Your task to perform on an android device: see tabs open on other devices in the chrome app Image 0: 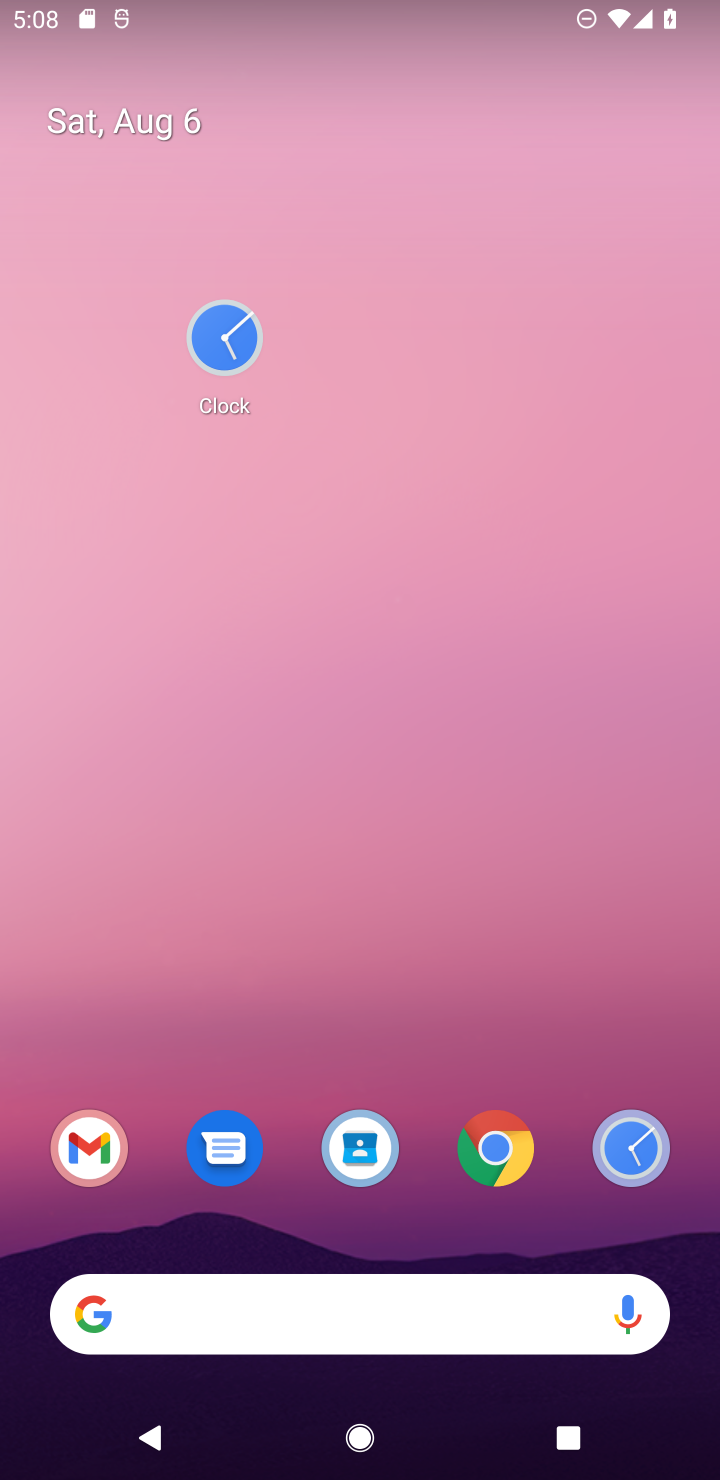
Step 0: click (505, 35)
Your task to perform on an android device: see tabs open on other devices in the chrome app Image 1: 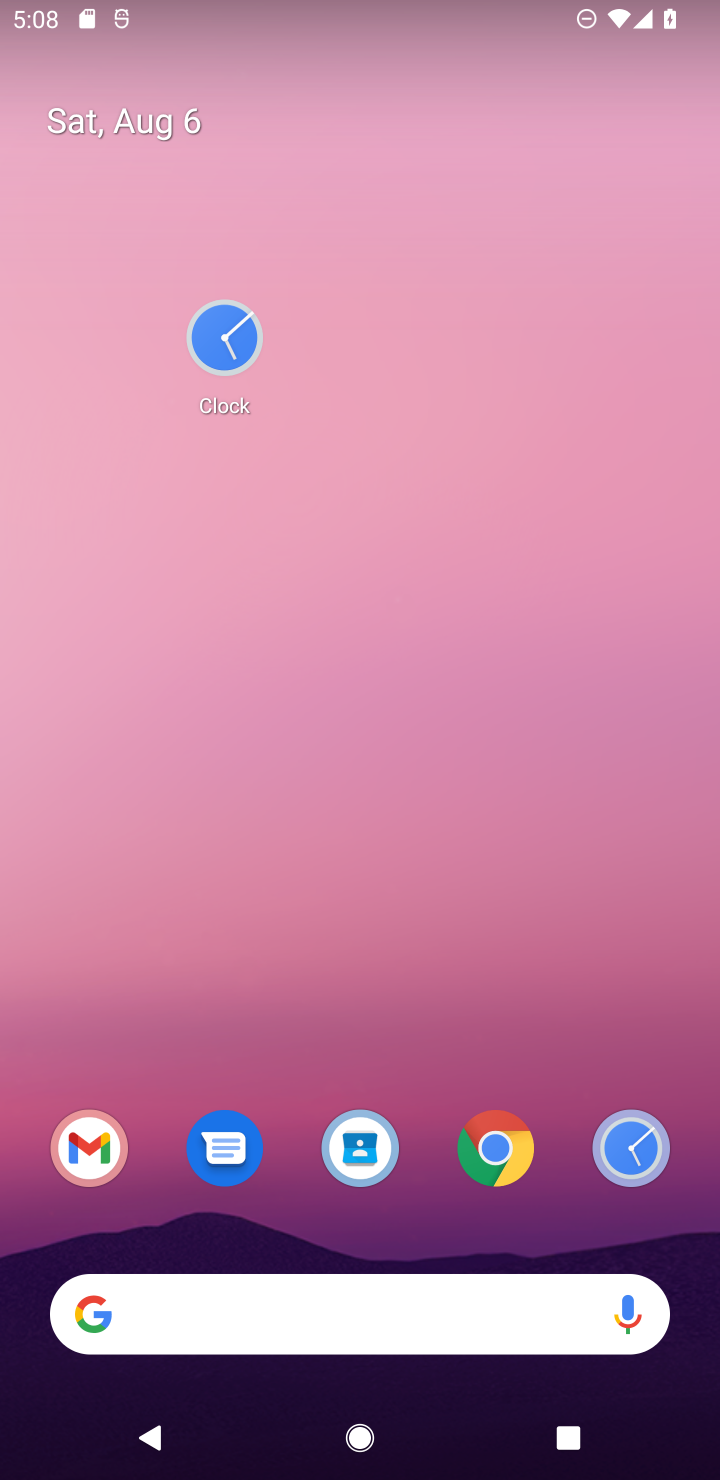
Step 1: drag from (293, 1275) to (492, 315)
Your task to perform on an android device: see tabs open on other devices in the chrome app Image 2: 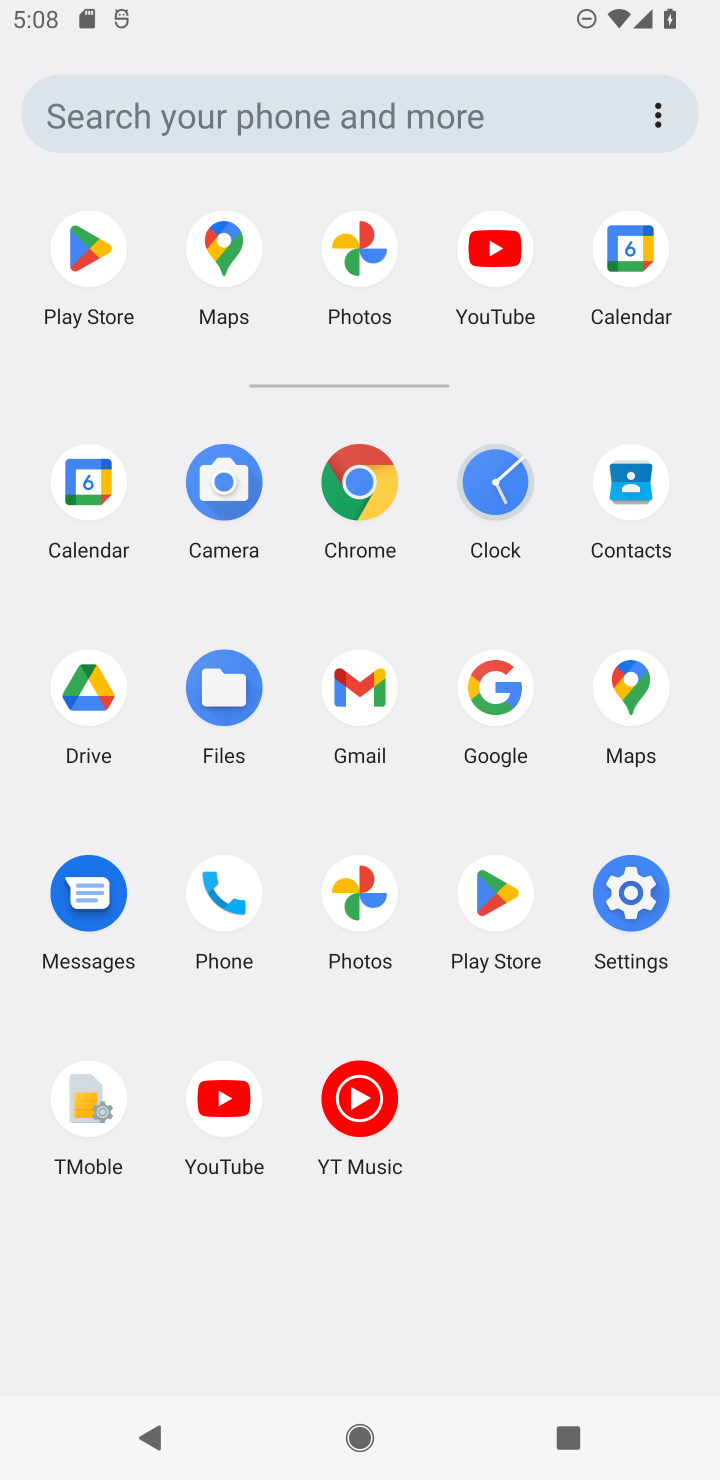
Step 2: click (357, 479)
Your task to perform on an android device: see tabs open on other devices in the chrome app Image 3: 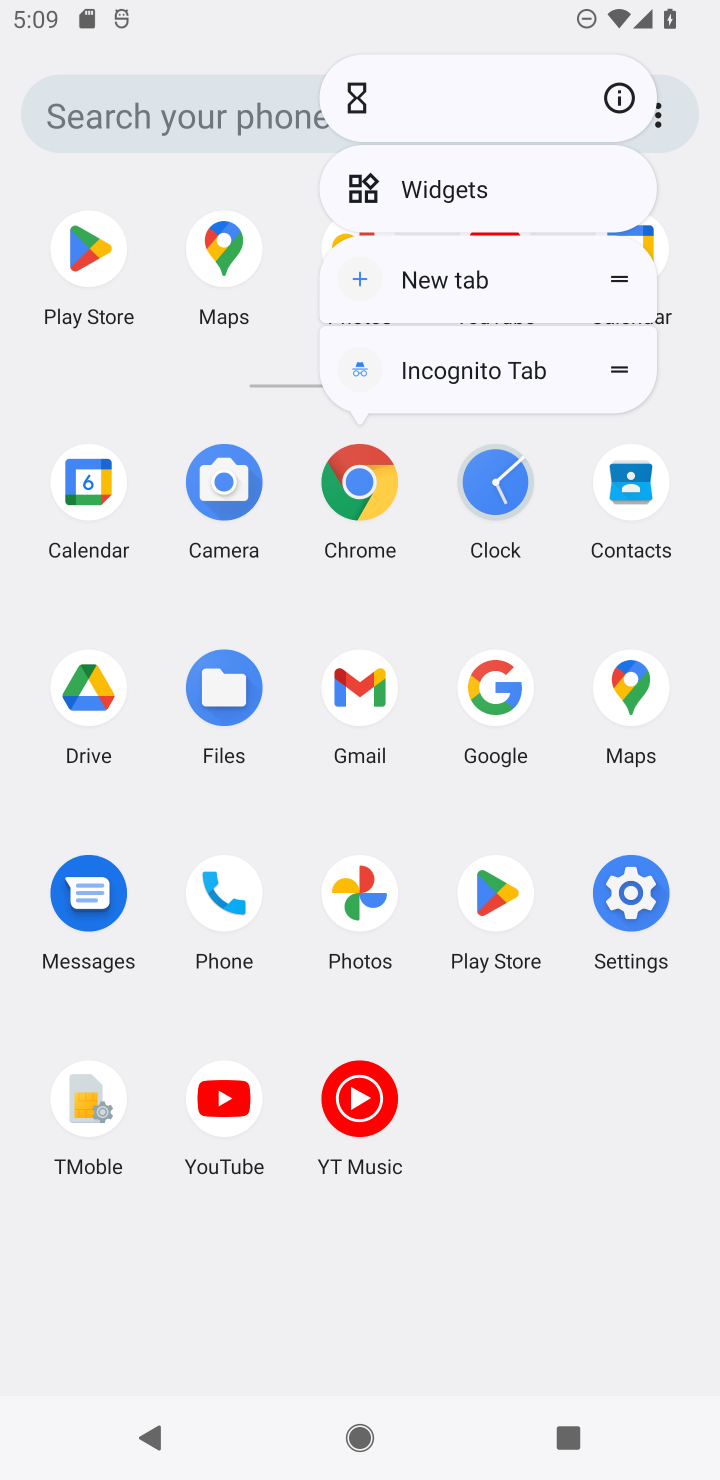
Step 3: click (618, 95)
Your task to perform on an android device: see tabs open on other devices in the chrome app Image 4: 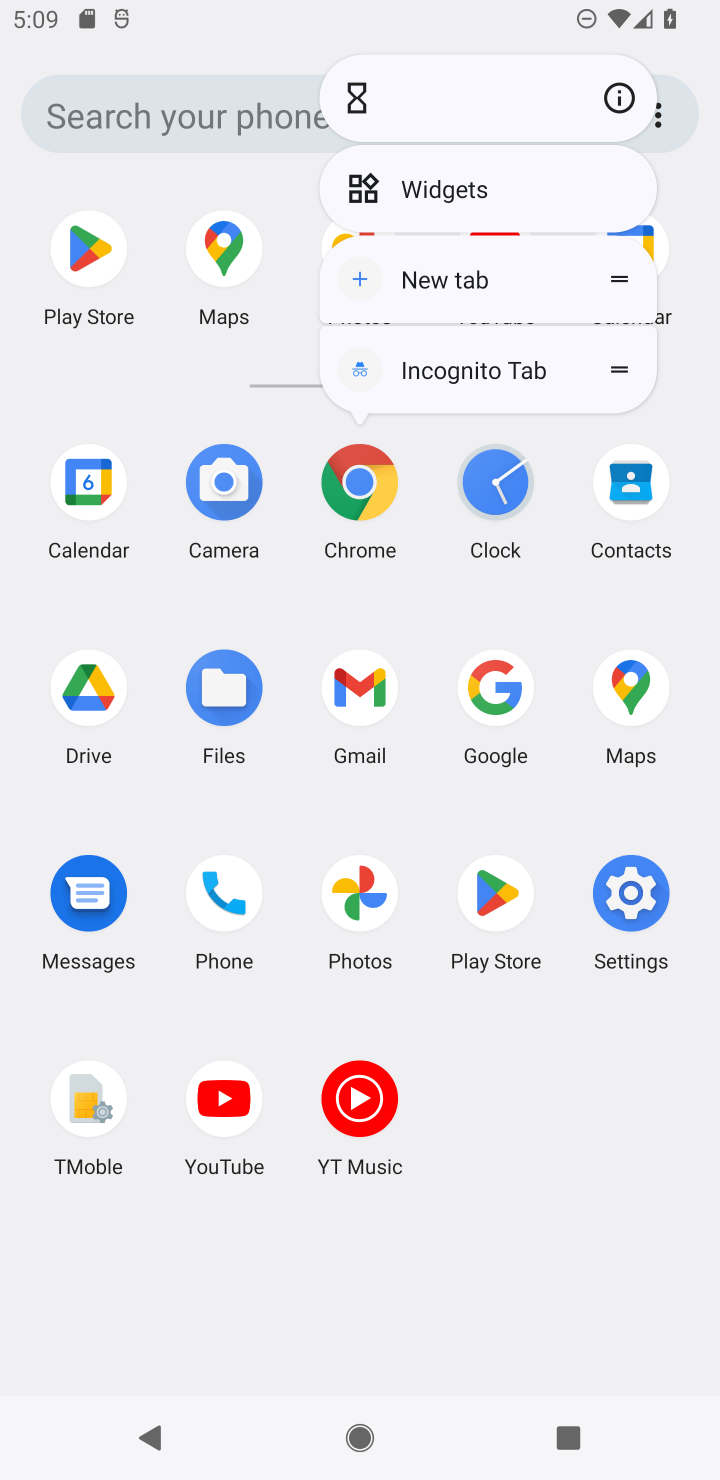
Step 4: click (363, 479)
Your task to perform on an android device: see tabs open on other devices in the chrome app Image 5: 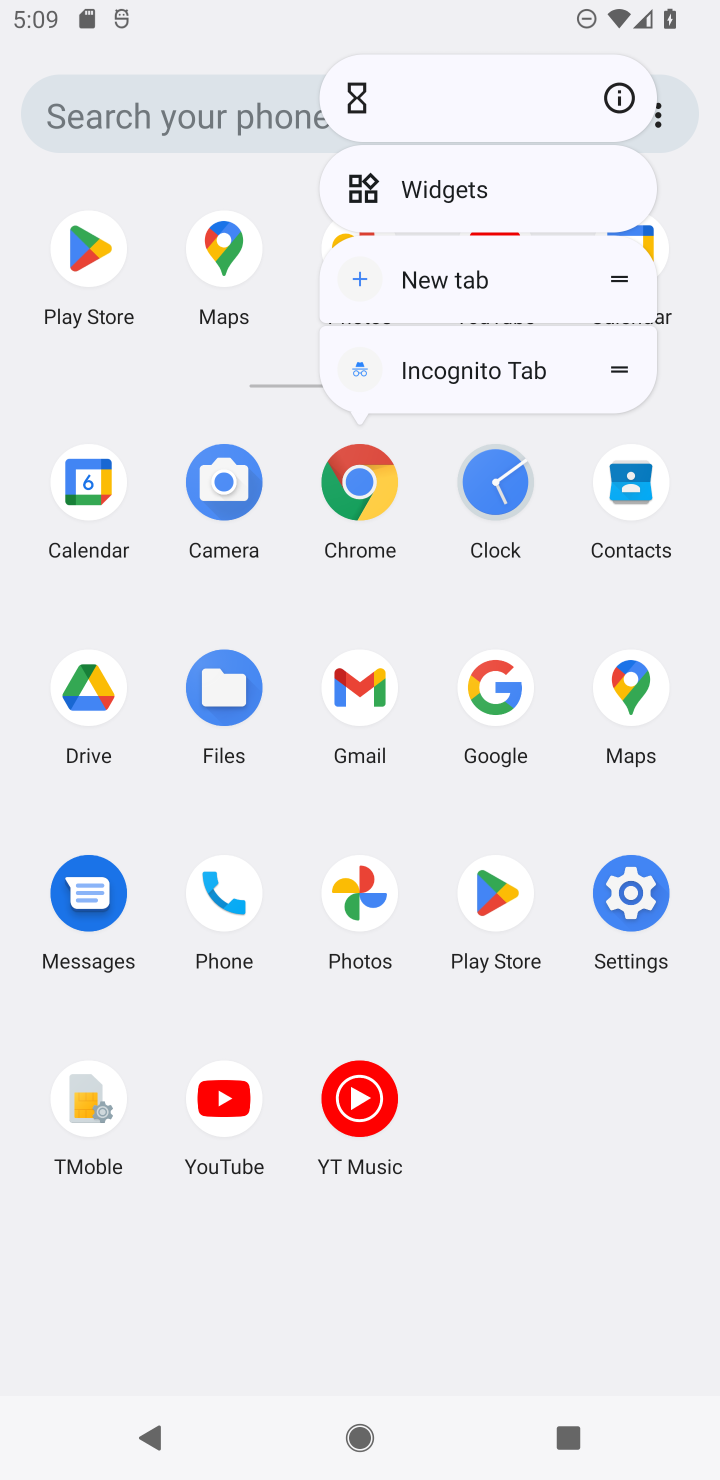
Step 5: click (373, 485)
Your task to perform on an android device: see tabs open on other devices in the chrome app Image 6: 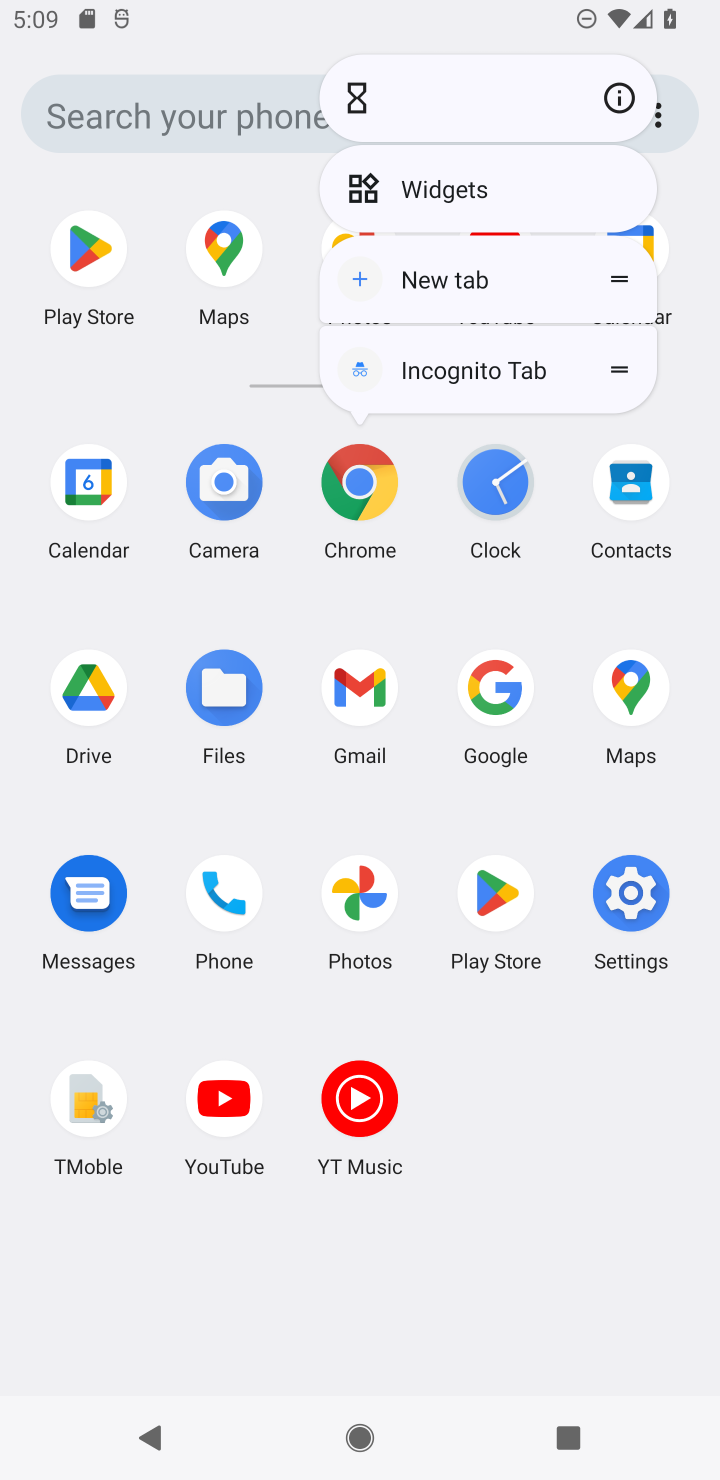
Step 6: click (357, 484)
Your task to perform on an android device: see tabs open on other devices in the chrome app Image 7: 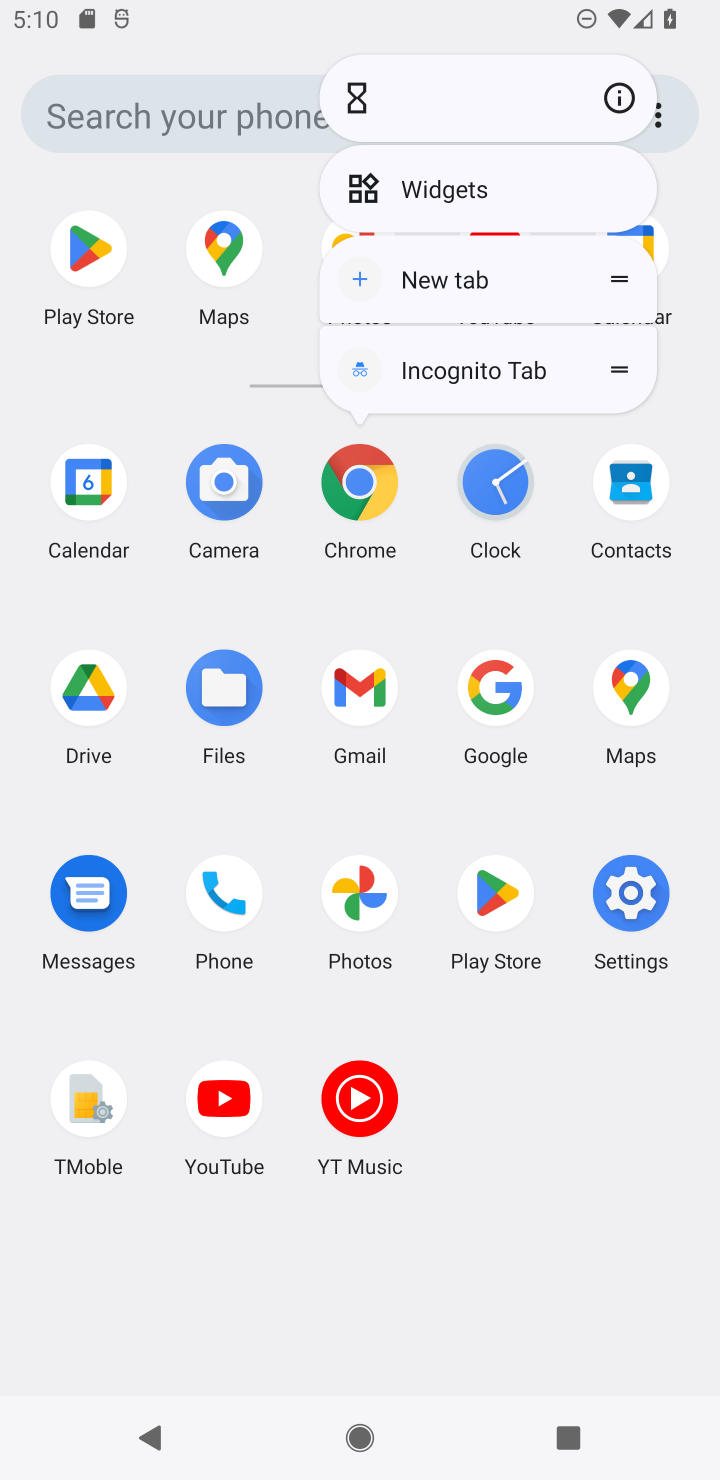
Step 7: click (619, 94)
Your task to perform on an android device: see tabs open on other devices in the chrome app Image 8: 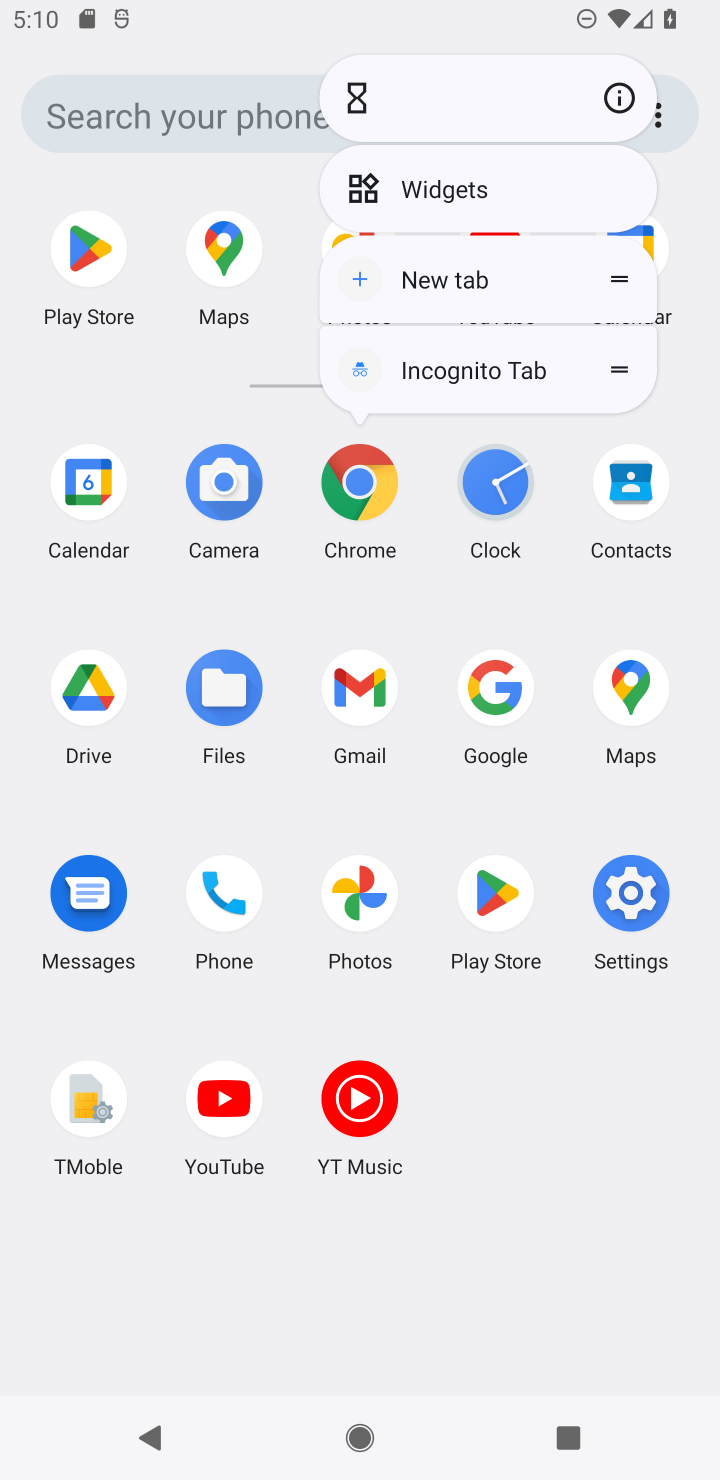
Step 8: click (339, 502)
Your task to perform on an android device: see tabs open on other devices in the chrome app Image 9: 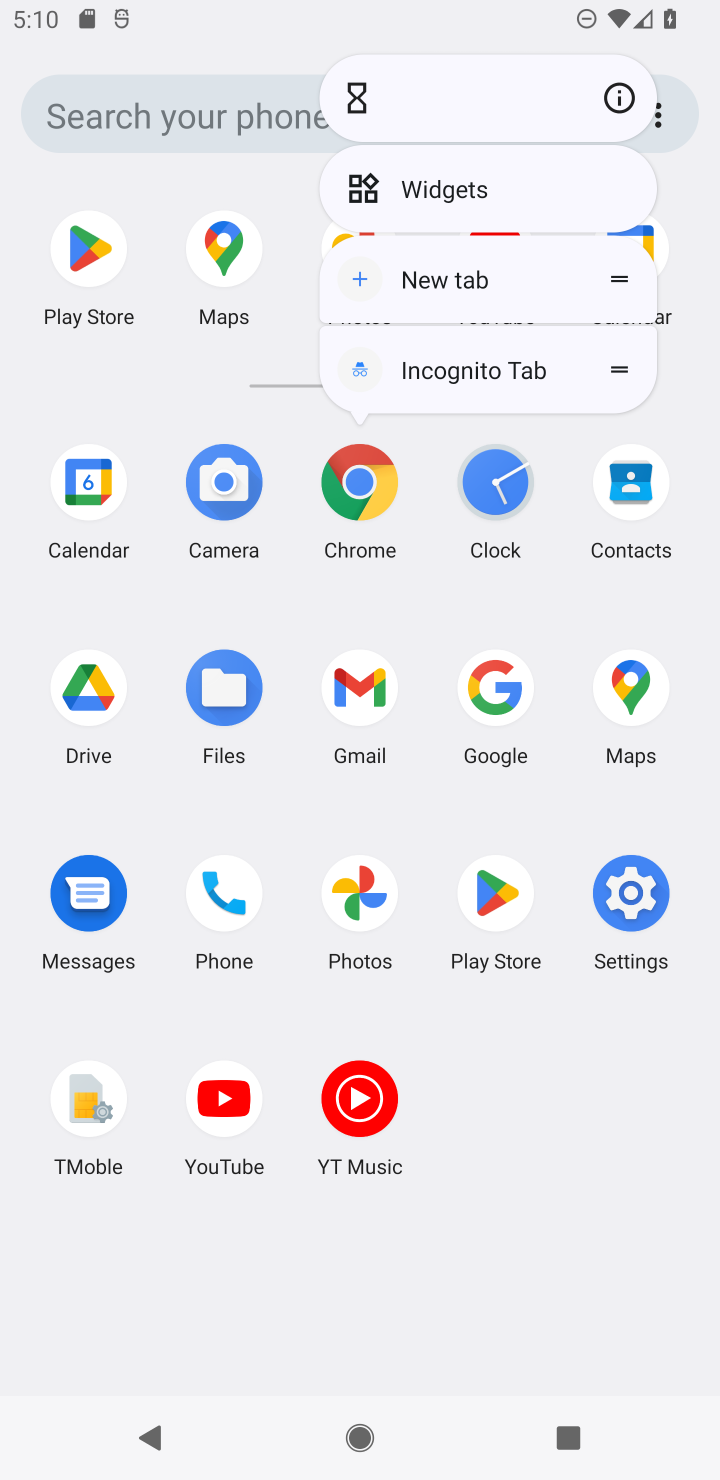
Step 9: click (346, 489)
Your task to perform on an android device: see tabs open on other devices in the chrome app Image 10: 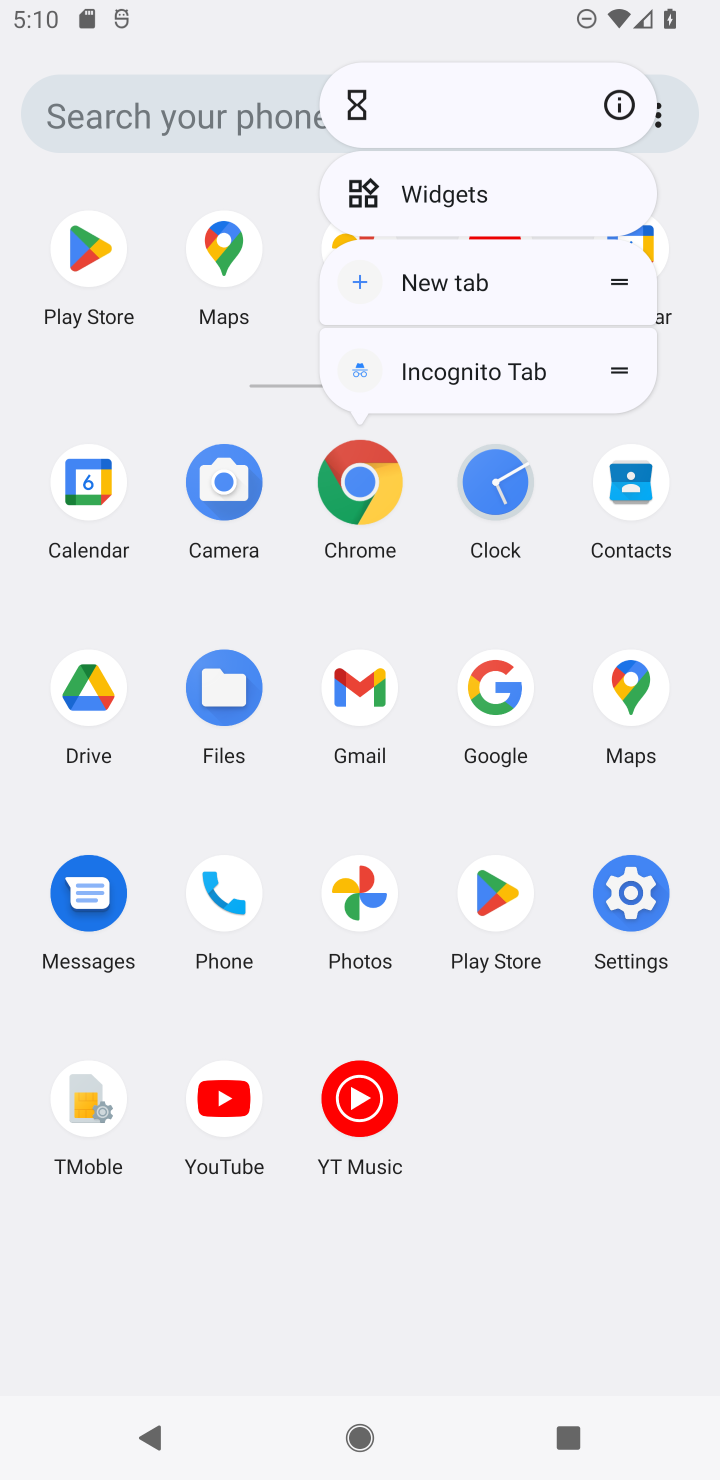
Step 10: click (346, 489)
Your task to perform on an android device: see tabs open on other devices in the chrome app Image 11: 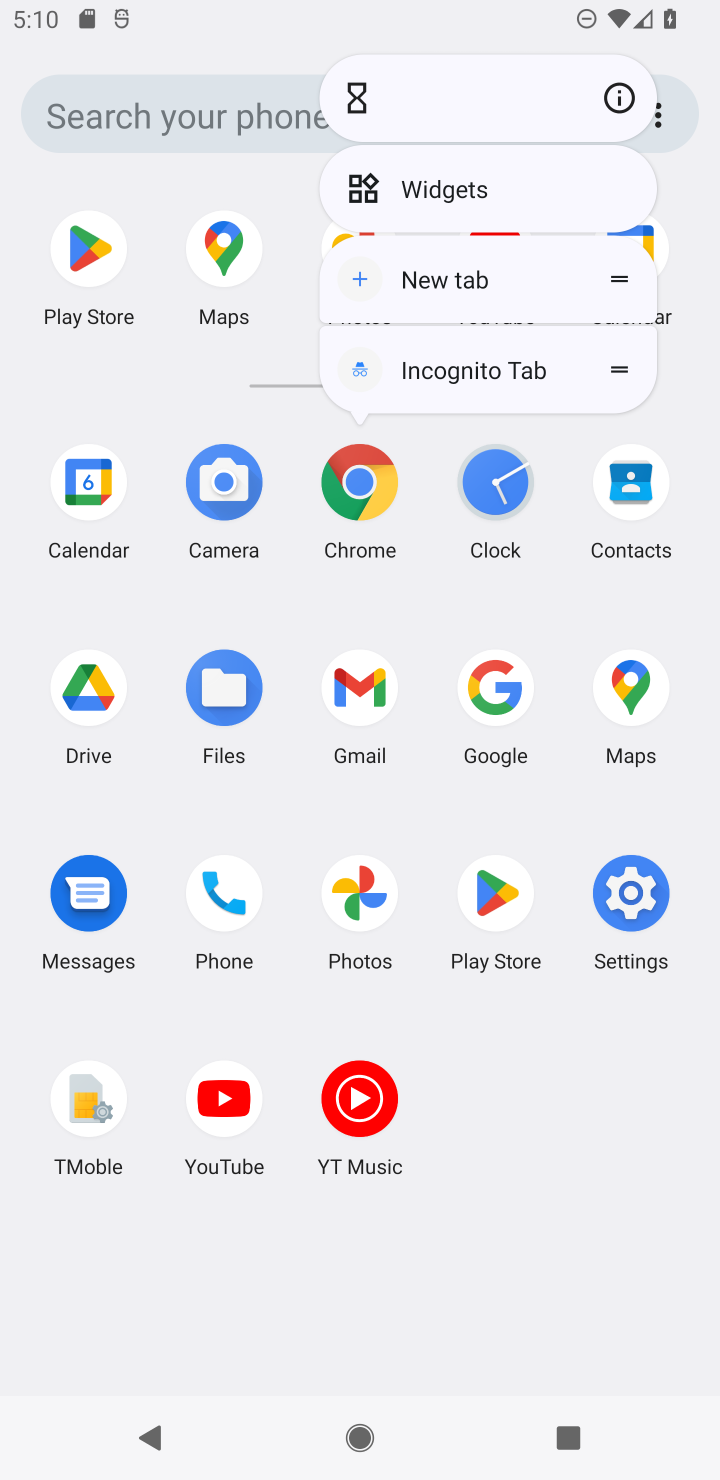
Step 11: click (613, 99)
Your task to perform on an android device: see tabs open on other devices in the chrome app Image 12: 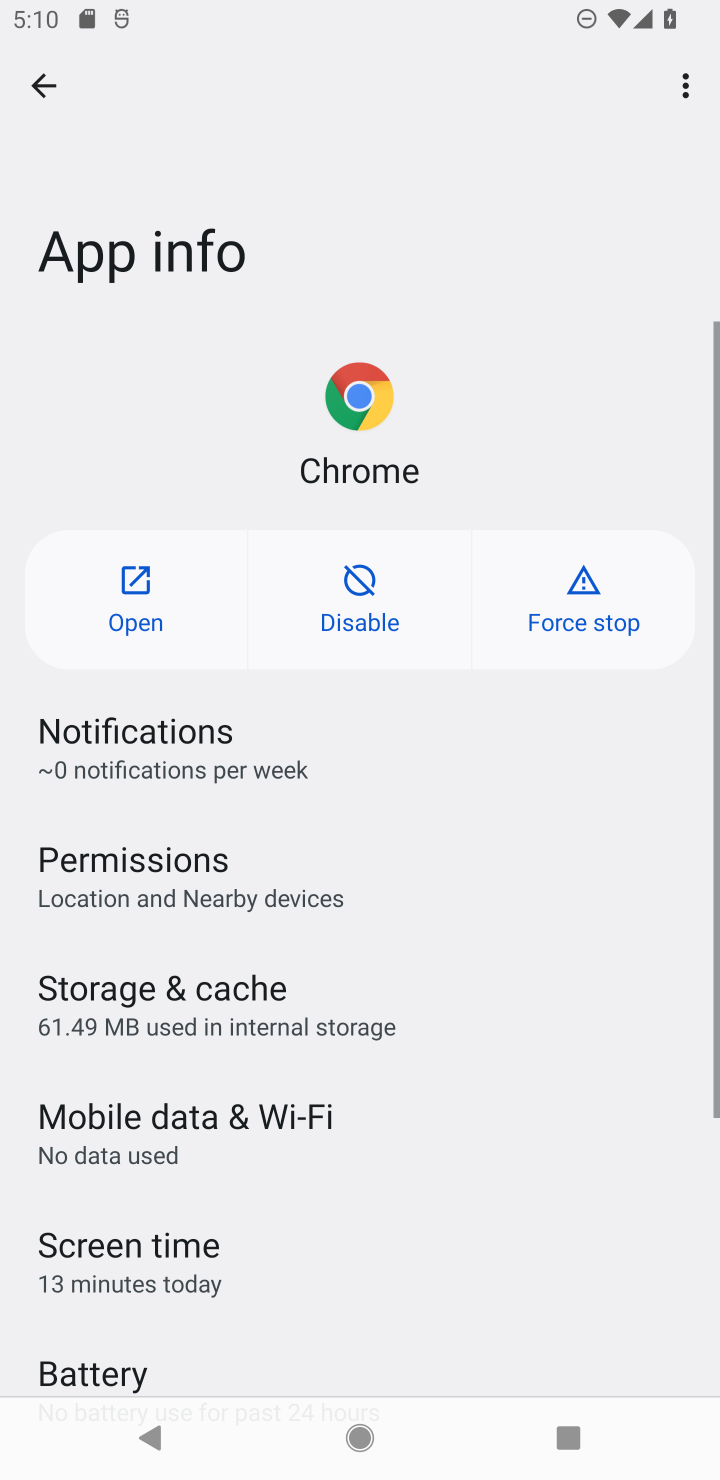
Step 12: click (154, 556)
Your task to perform on an android device: see tabs open on other devices in the chrome app Image 13: 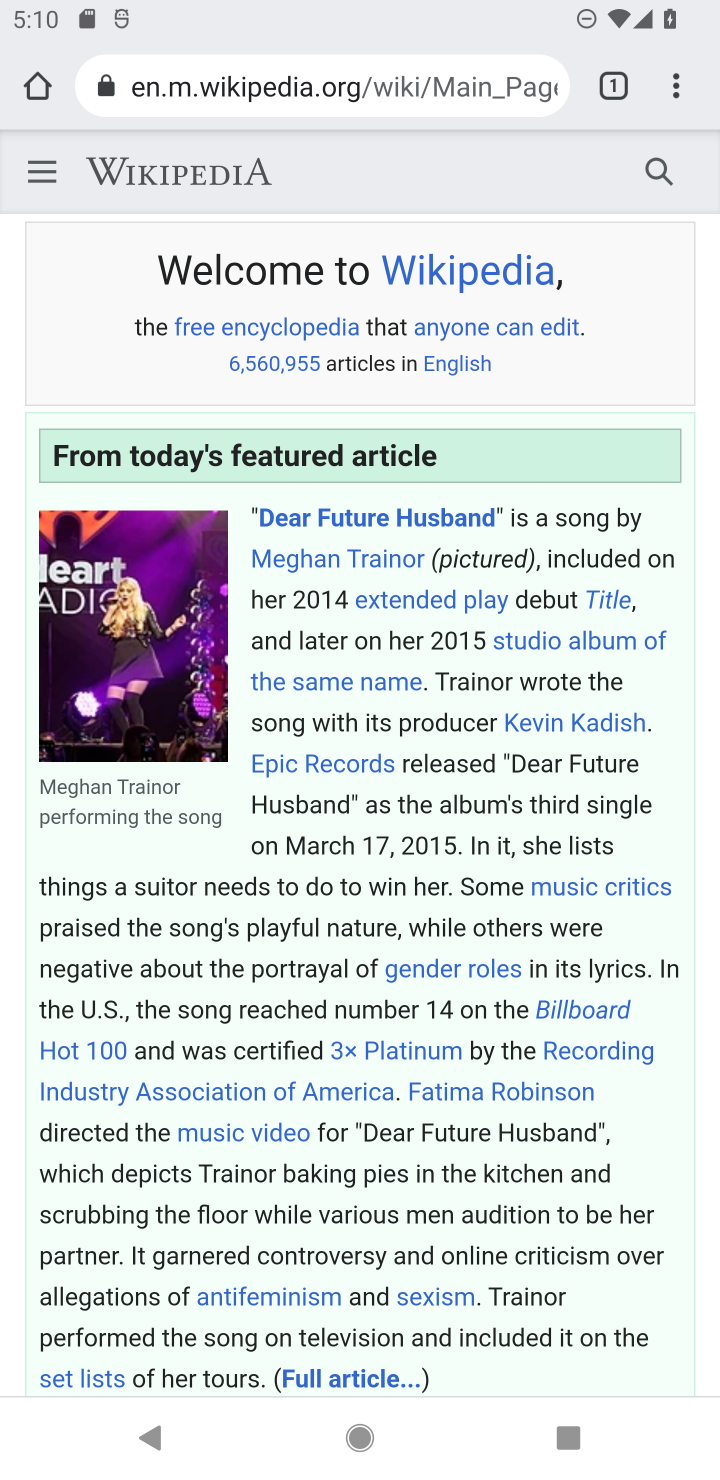
Step 13: task complete